Your task to perform on an android device: open app "Indeed Job Search" (install if not already installed) and go to login screen Image 0: 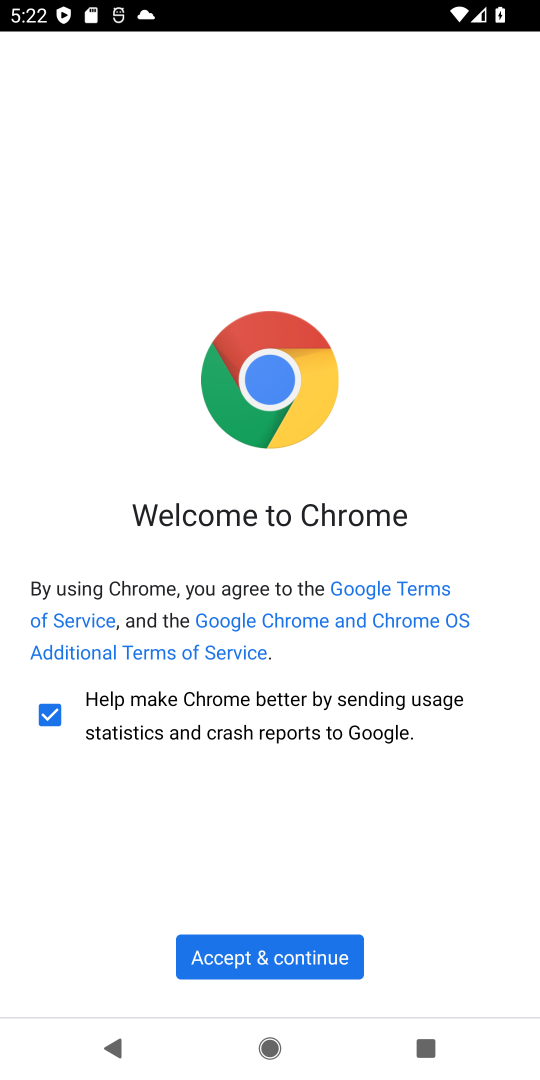
Step 0: press home button
Your task to perform on an android device: open app "Indeed Job Search" (install if not already installed) and go to login screen Image 1: 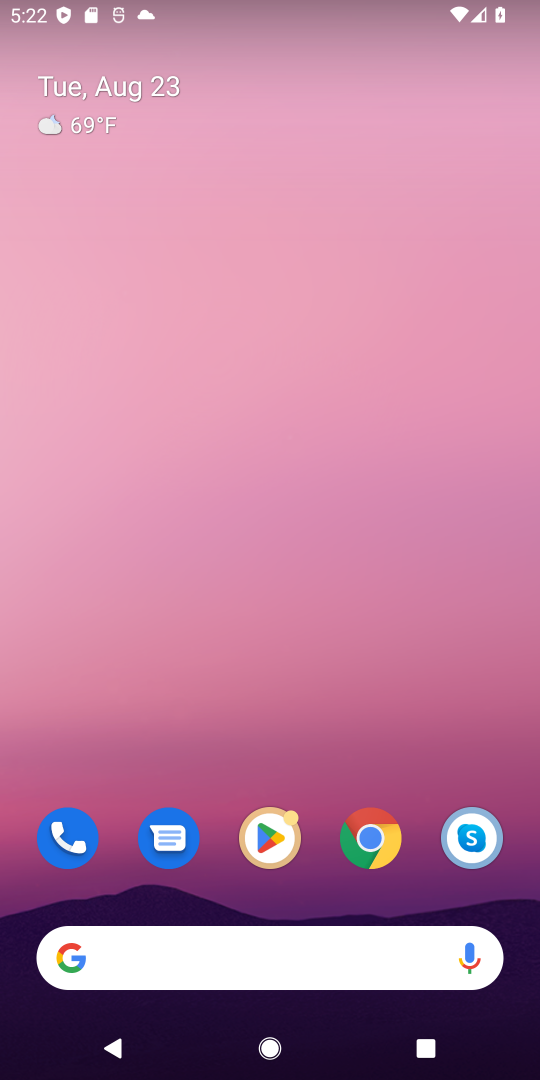
Step 1: drag from (288, 641) to (278, 1)
Your task to perform on an android device: open app "Indeed Job Search" (install if not already installed) and go to login screen Image 2: 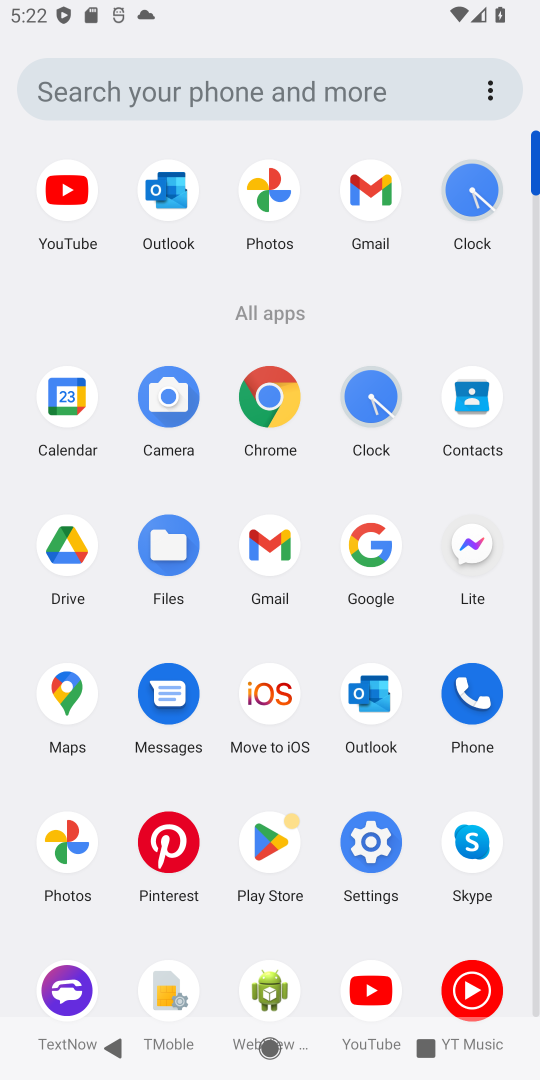
Step 2: click (267, 834)
Your task to perform on an android device: open app "Indeed Job Search" (install if not already installed) and go to login screen Image 3: 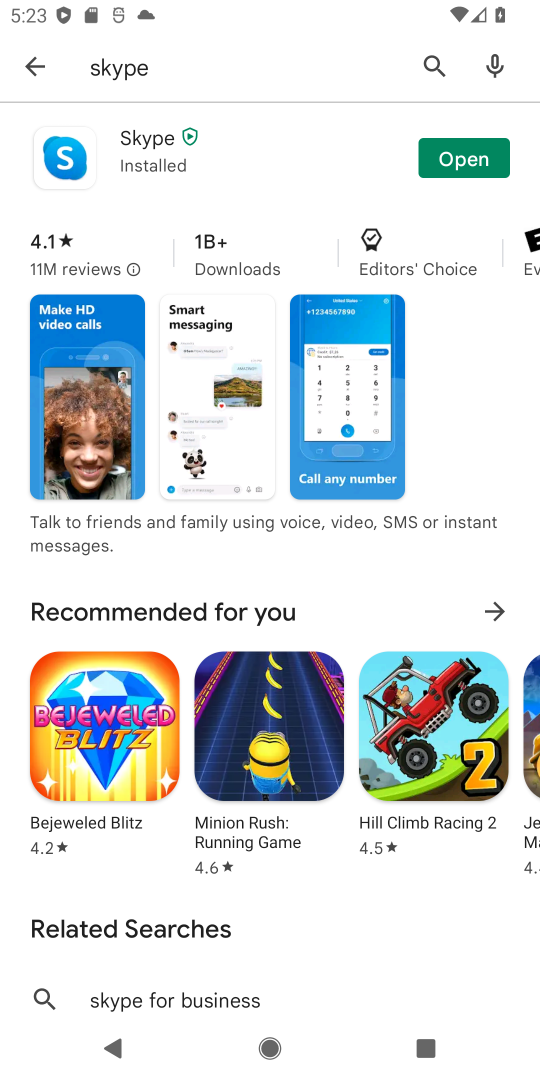
Step 3: click (431, 61)
Your task to perform on an android device: open app "Indeed Job Search" (install if not already installed) and go to login screen Image 4: 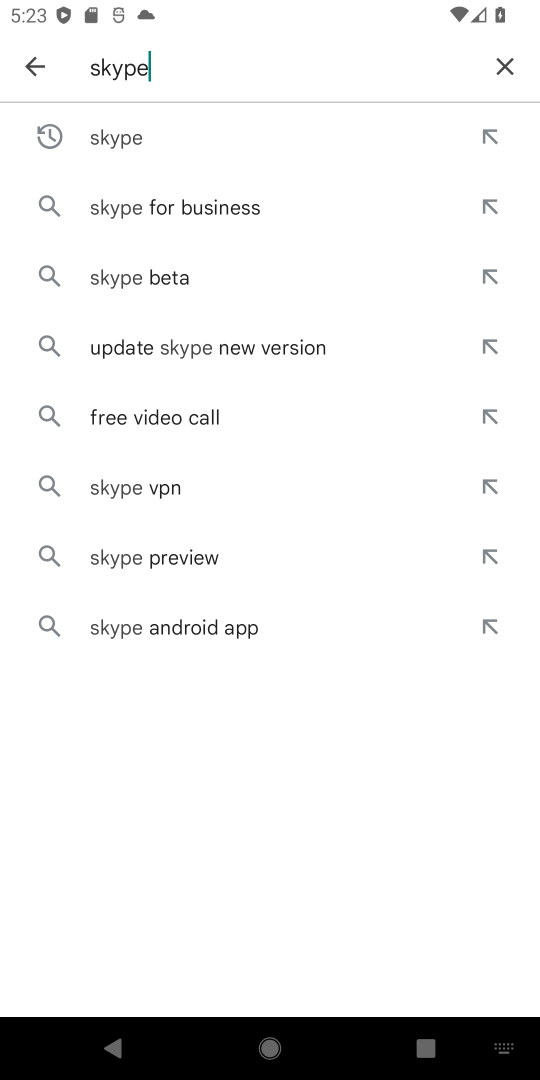
Step 4: click (501, 62)
Your task to perform on an android device: open app "Indeed Job Search" (install if not already installed) and go to login screen Image 5: 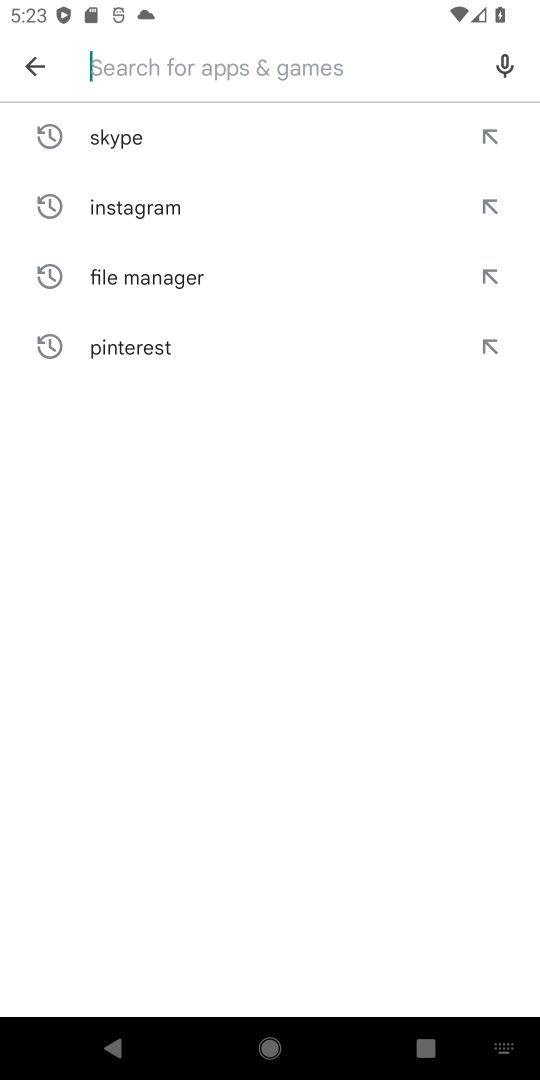
Step 5: type "Indeed Job Search"
Your task to perform on an android device: open app "Indeed Job Search" (install if not already installed) and go to login screen Image 6: 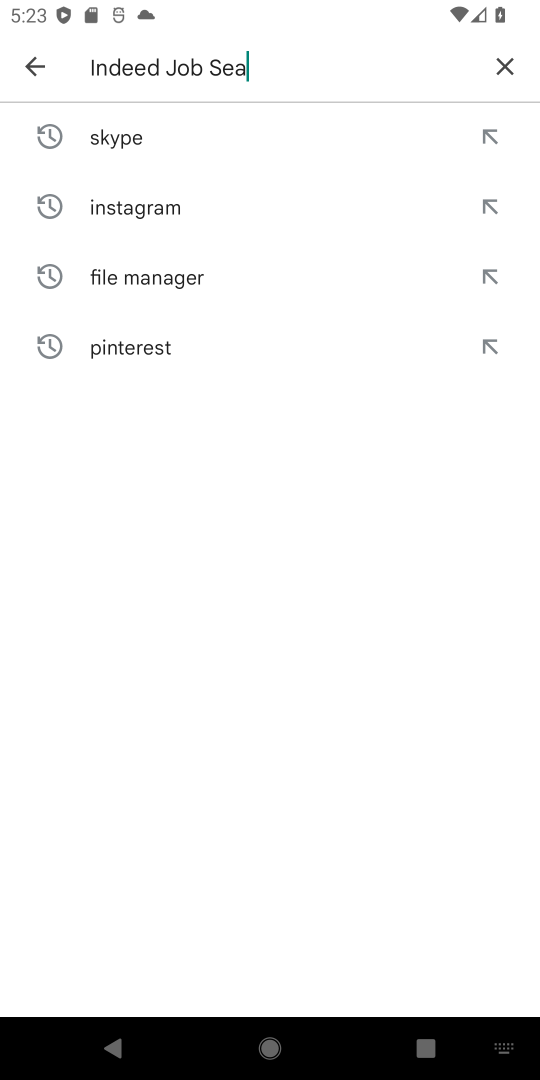
Step 6: type ""
Your task to perform on an android device: open app "Indeed Job Search" (install if not already installed) and go to login screen Image 7: 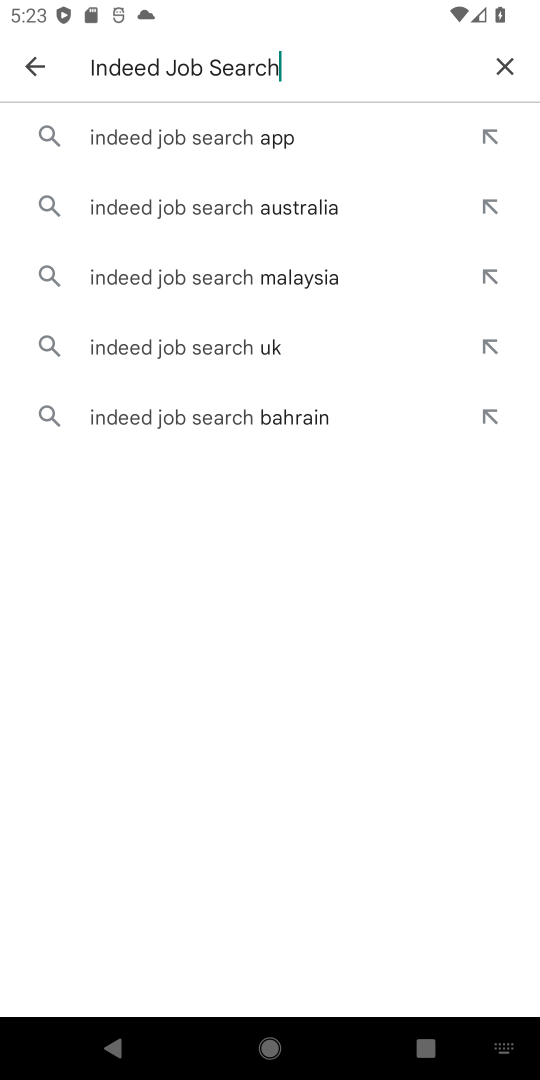
Step 7: click (218, 140)
Your task to perform on an android device: open app "Indeed Job Search" (install if not already installed) and go to login screen Image 8: 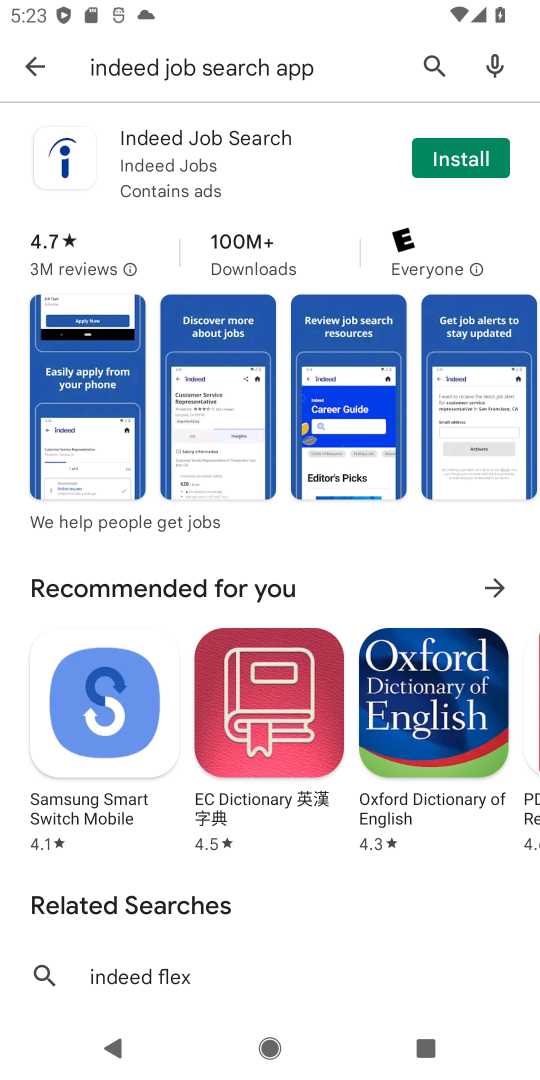
Step 8: click (467, 153)
Your task to perform on an android device: open app "Indeed Job Search" (install if not already installed) and go to login screen Image 9: 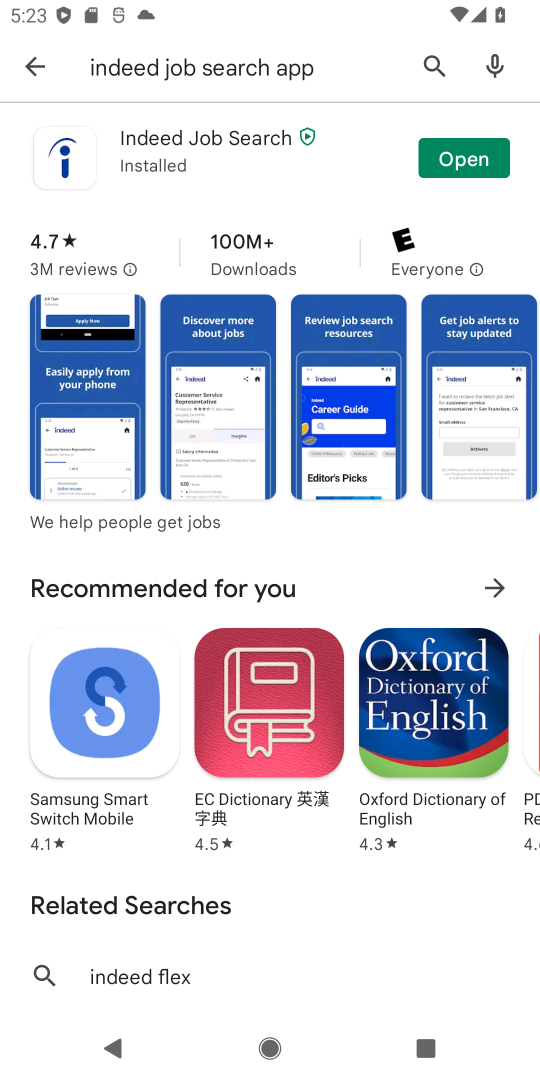
Step 9: click (489, 152)
Your task to perform on an android device: open app "Indeed Job Search" (install if not already installed) and go to login screen Image 10: 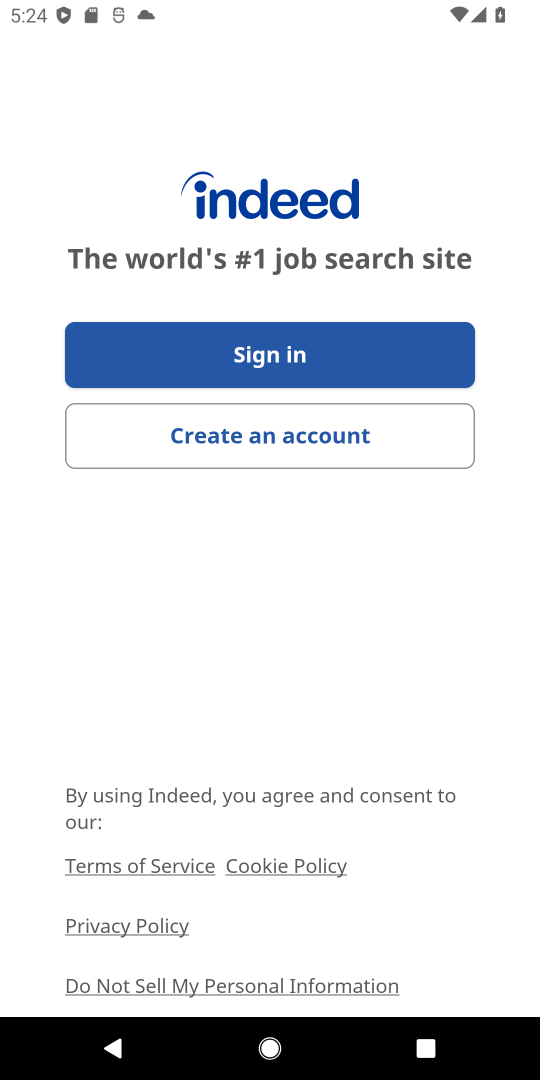
Step 10: click (280, 355)
Your task to perform on an android device: open app "Indeed Job Search" (install if not already installed) and go to login screen Image 11: 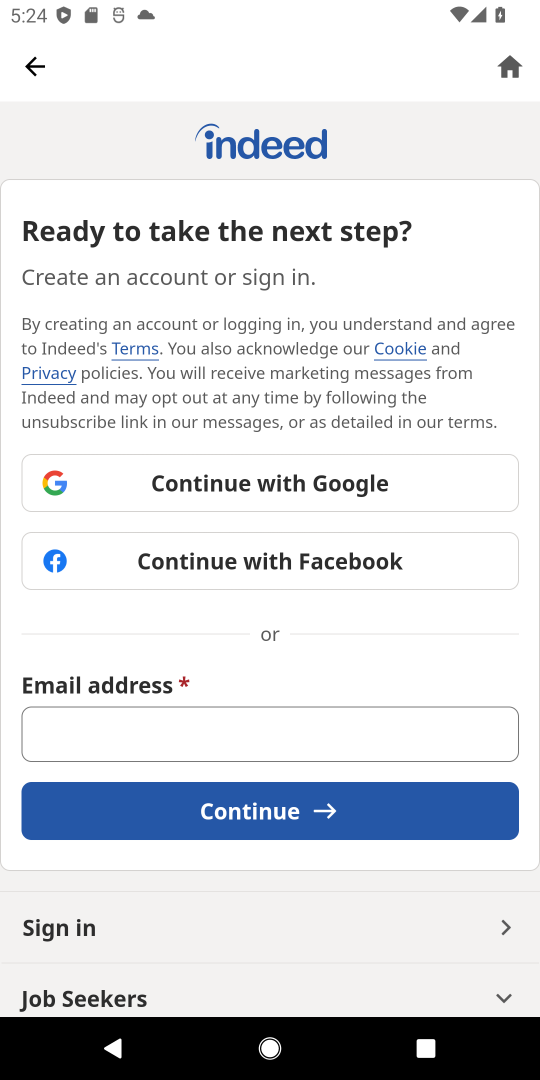
Step 11: task complete